Your task to perform on an android device: move a message to another label in the gmail app Image 0: 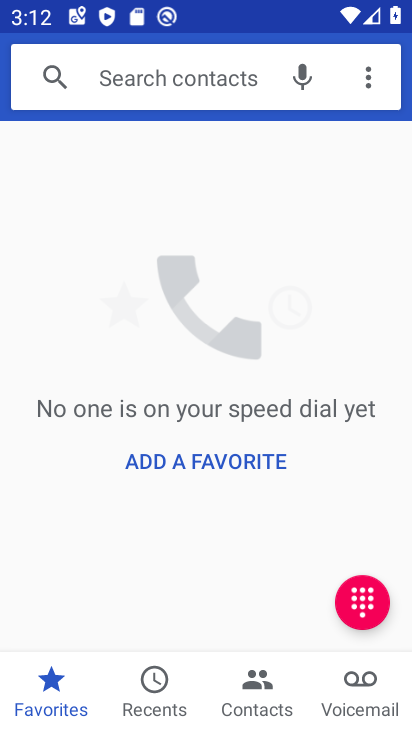
Step 0: drag from (203, 613) to (267, 452)
Your task to perform on an android device: move a message to another label in the gmail app Image 1: 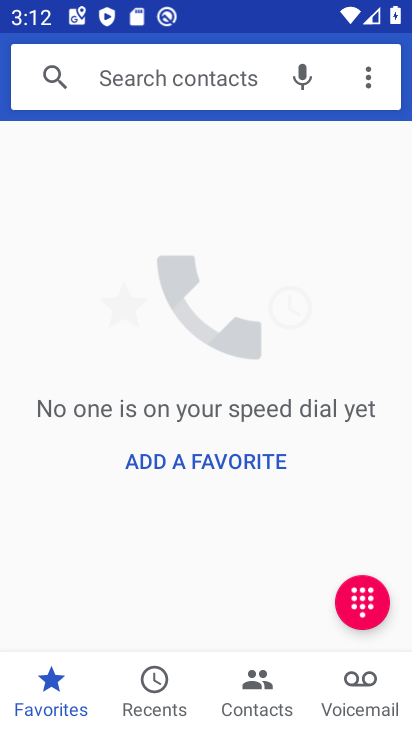
Step 1: press home button
Your task to perform on an android device: move a message to another label in the gmail app Image 2: 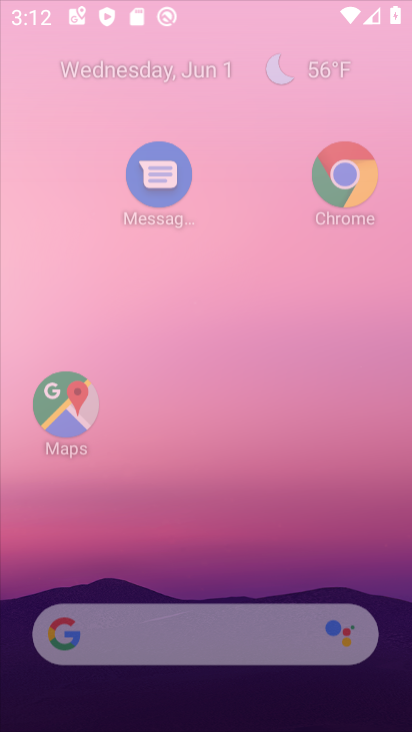
Step 2: drag from (140, 687) to (269, 213)
Your task to perform on an android device: move a message to another label in the gmail app Image 3: 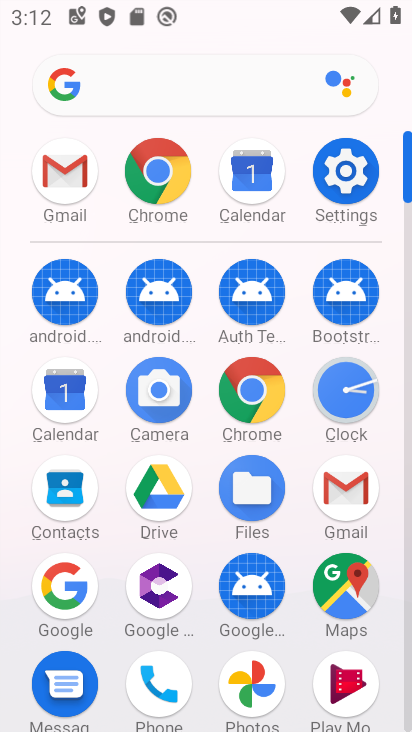
Step 3: click (337, 499)
Your task to perform on an android device: move a message to another label in the gmail app Image 4: 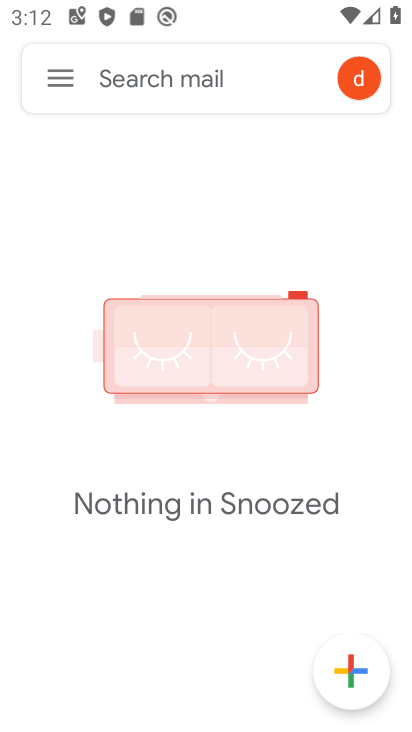
Step 4: click (67, 78)
Your task to perform on an android device: move a message to another label in the gmail app Image 5: 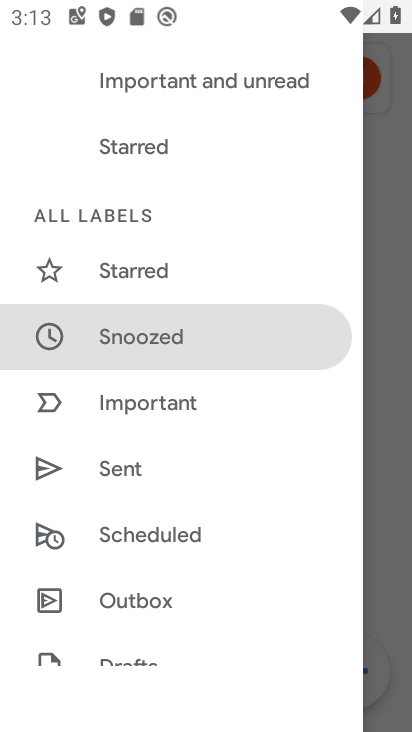
Step 5: drag from (116, 586) to (221, 184)
Your task to perform on an android device: move a message to another label in the gmail app Image 6: 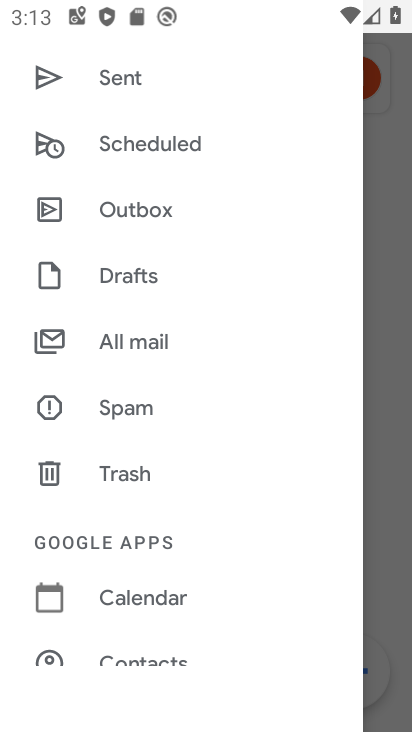
Step 6: drag from (159, 579) to (183, 210)
Your task to perform on an android device: move a message to another label in the gmail app Image 7: 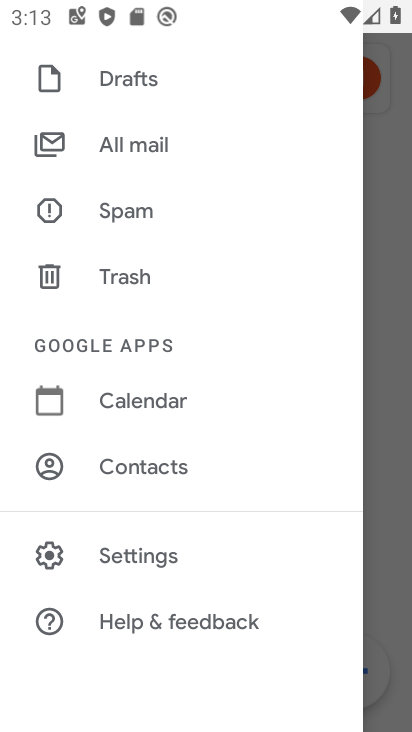
Step 7: click (148, 162)
Your task to perform on an android device: move a message to another label in the gmail app Image 8: 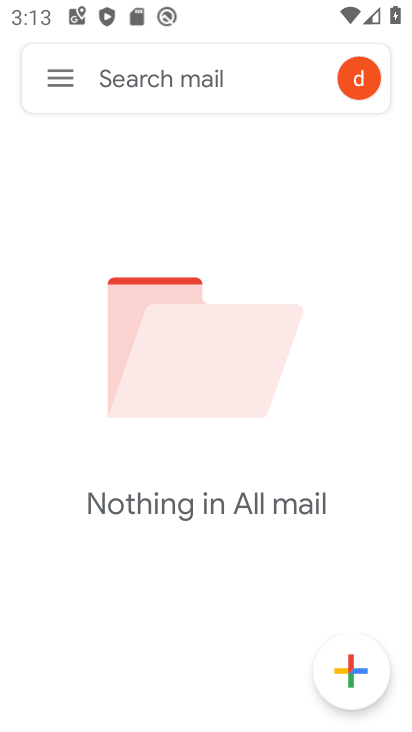
Step 8: task complete